Your task to perform on an android device: Open location settings Image 0: 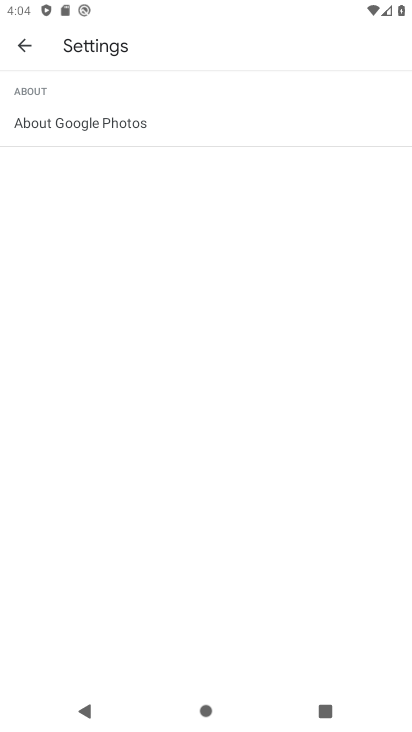
Step 0: press home button
Your task to perform on an android device: Open location settings Image 1: 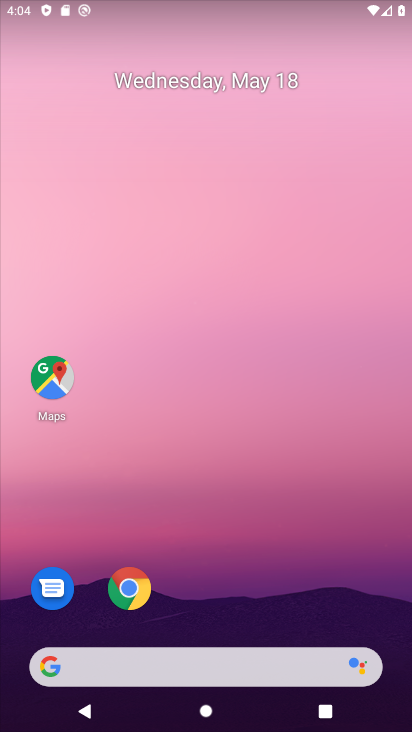
Step 1: drag from (270, 522) to (268, 128)
Your task to perform on an android device: Open location settings Image 2: 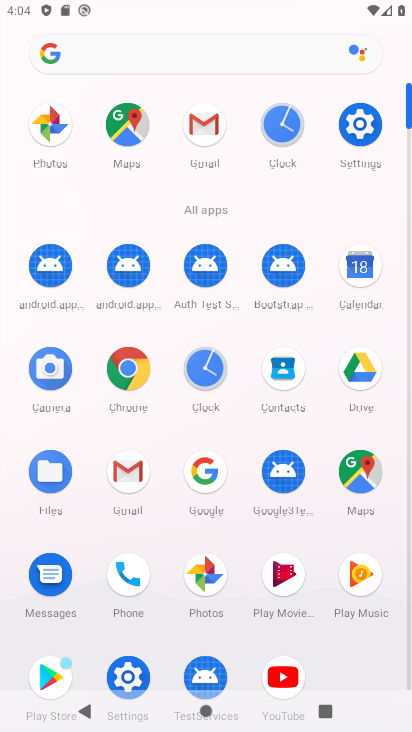
Step 2: click (354, 129)
Your task to perform on an android device: Open location settings Image 3: 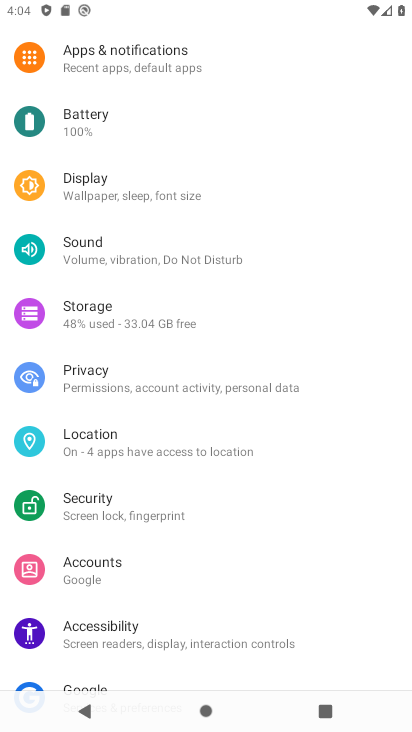
Step 3: click (128, 451)
Your task to perform on an android device: Open location settings Image 4: 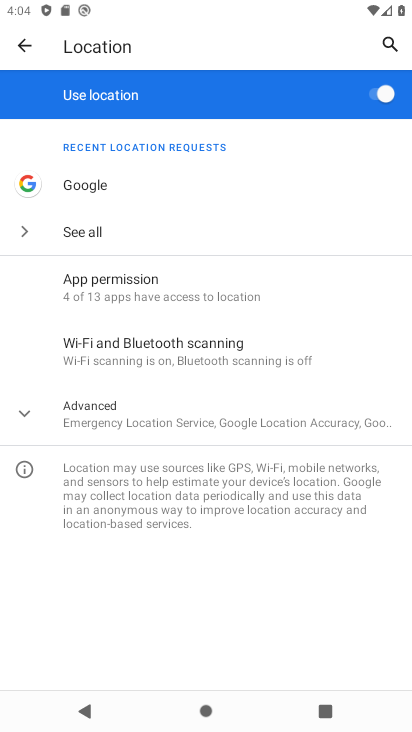
Step 4: task complete